Your task to perform on an android device: create a new album in the google photos Image 0: 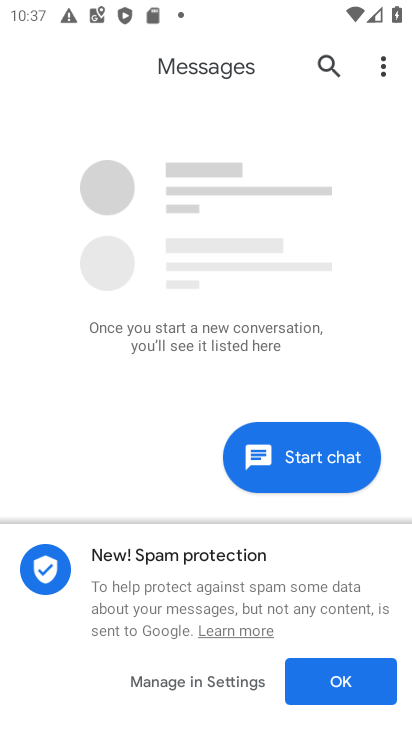
Step 0: press home button
Your task to perform on an android device: create a new album in the google photos Image 1: 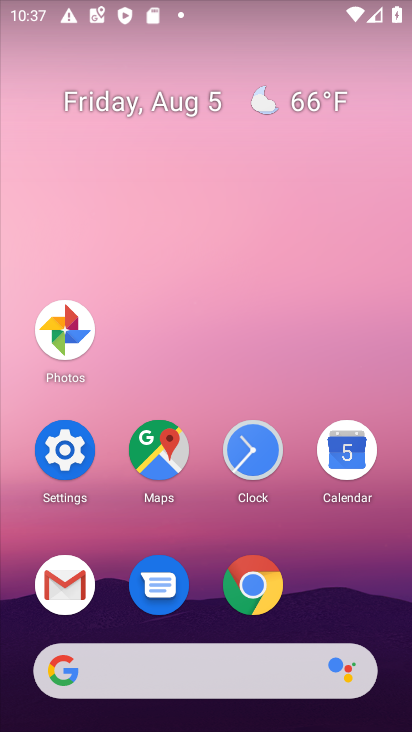
Step 1: click (64, 323)
Your task to perform on an android device: create a new album in the google photos Image 2: 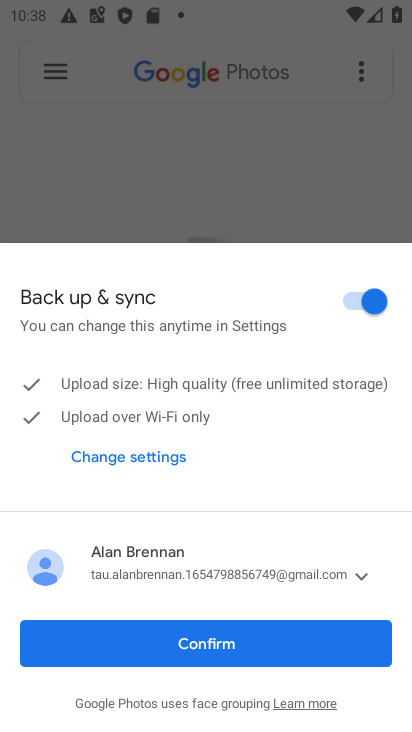
Step 2: click (219, 639)
Your task to perform on an android device: create a new album in the google photos Image 3: 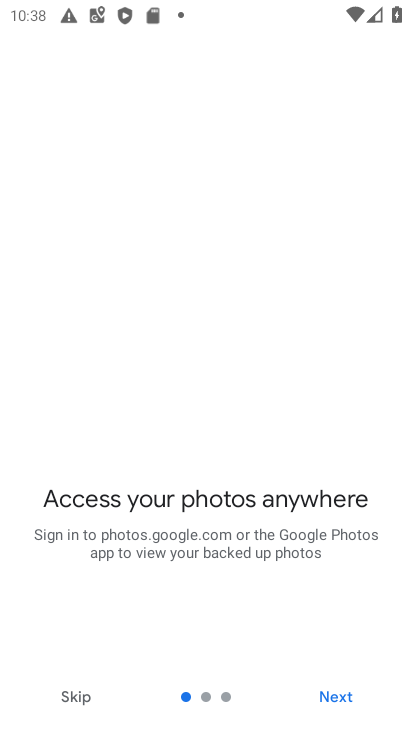
Step 3: click (331, 697)
Your task to perform on an android device: create a new album in the google photos Image 4: 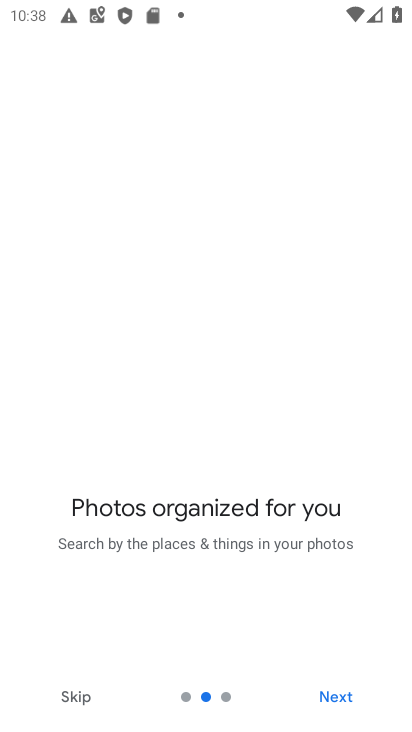
Step 4: click (331, 697)
Your task to perform on an android device: create a new album in the google photos Image 5: 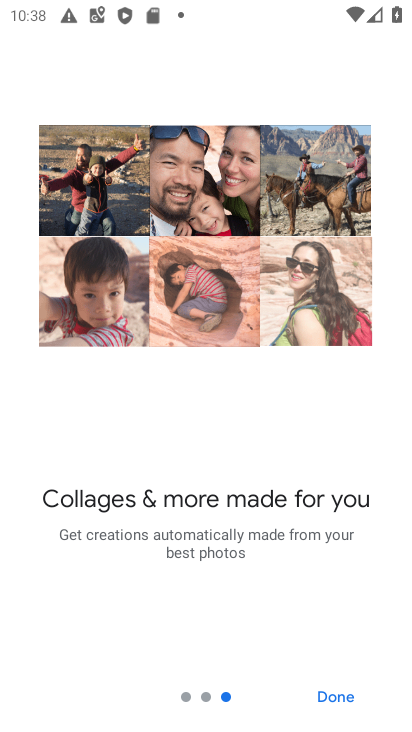
Step 5: click (331, 697)
Your task to perform on an android device: create a new album in the google photos Image 6: 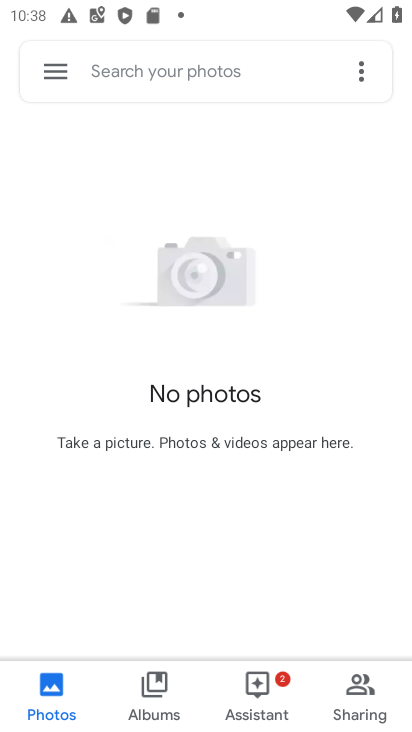
Step 6: click (146, 679)
Your task to perform on an android device: create a new album in the google photos Image 7: 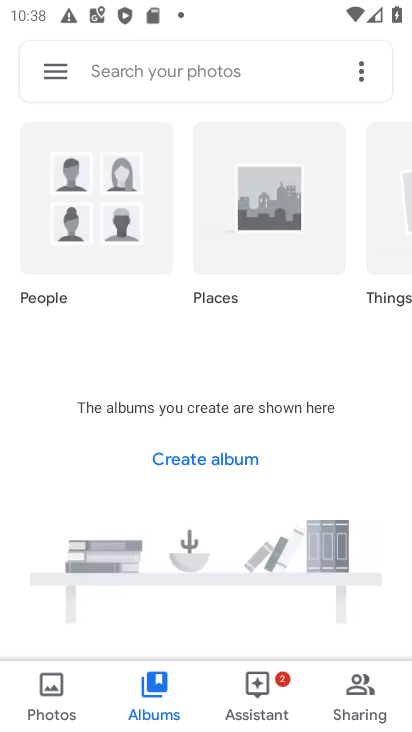
Step 7: click (210, 458)
Your task to perform on an android device: create a new album in the google photos Image 8: 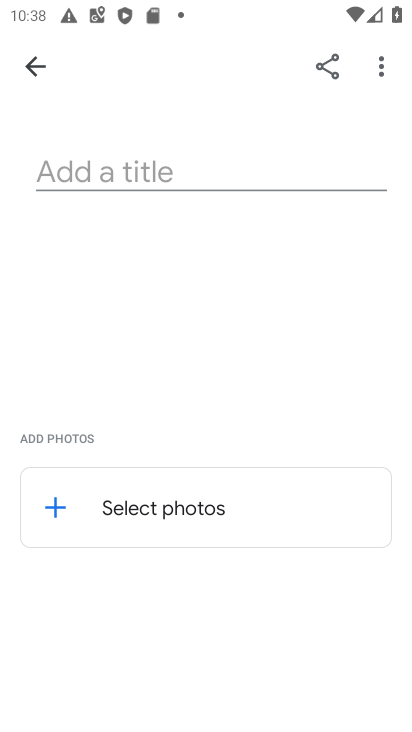
Step 8: click (133, 156)
Your task to perform on an android device: create a new album in the google photos Image 9: 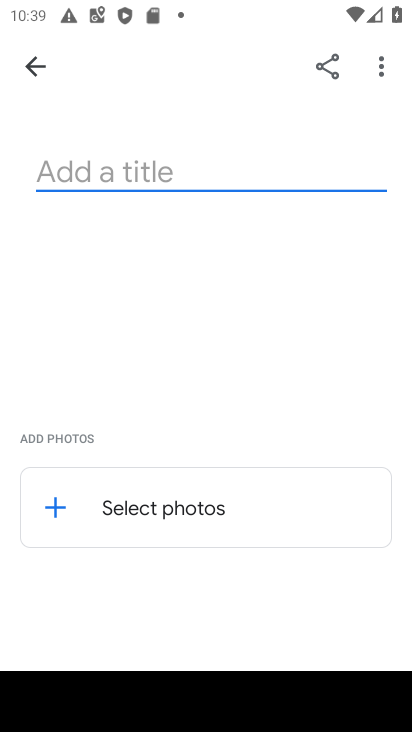
Step 9: type "hhhhhhhhhhhh"
Your task to perform on an android device: create a new album in the google photos Image 10: 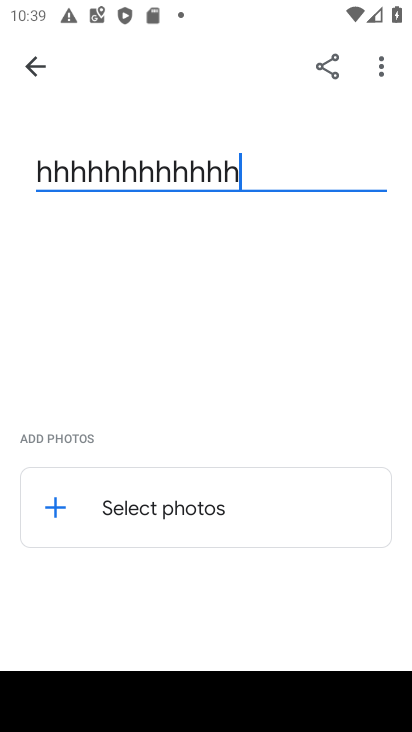
Step 10: click (337, 71)
Your task to perform on an android device: create a new album in the google photos Image 11: 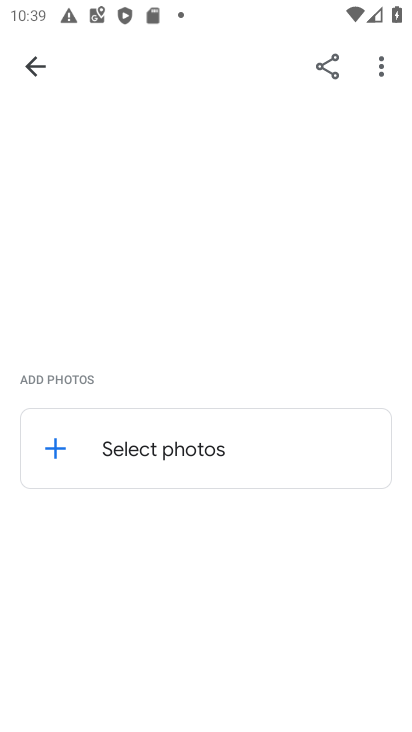
Step 11: task complete